Your task to perform on an android device: View the shopping cart on ebay.com. Image 0: 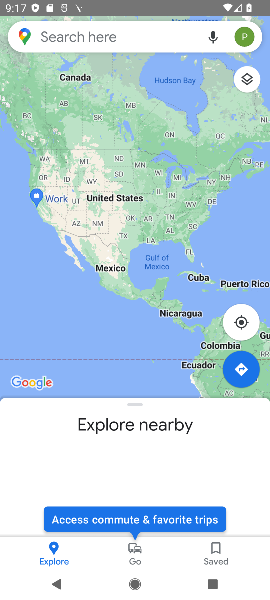
Step 0: press home button
Your task to perform on an android device: View the shopping cart on ebay.com. Image 1: 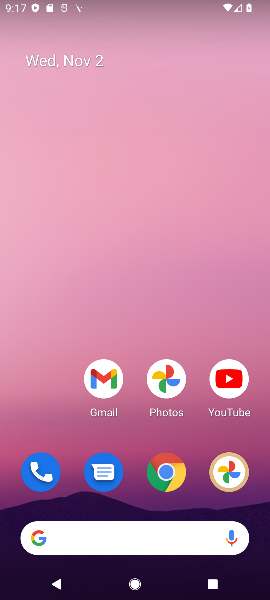
Step 1: click (167, 466)
Your task to perform on an android device: View the shopping cart on ebay.com. Image 2: 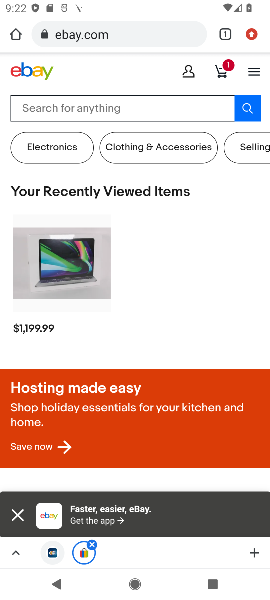
Step 2: task complete